Your task to perform on an android device: all mails in gmail Image 0: 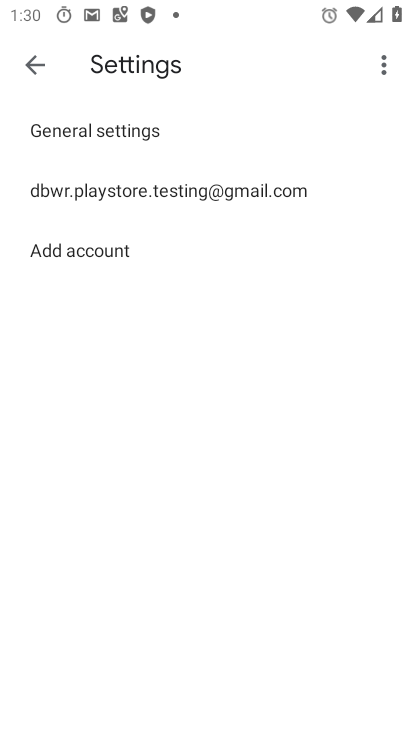
Step 0: press home button
Your task to perform on an android device: all mails in gmail Image 1: 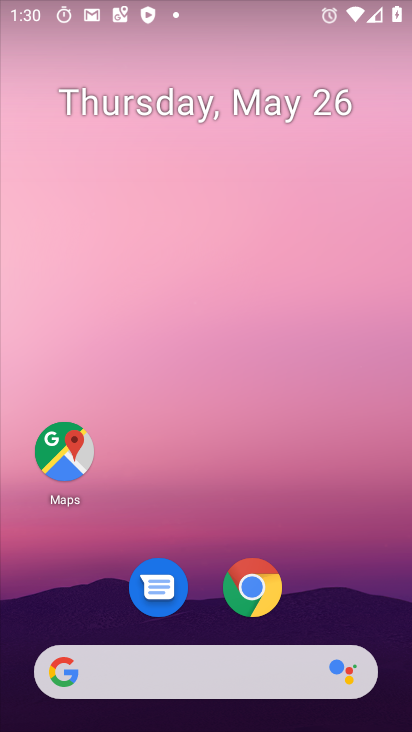
Step 1: drag from (253, 697) to (193, 48)
Your task to perform on an android device: all mails in gmail Image 2: 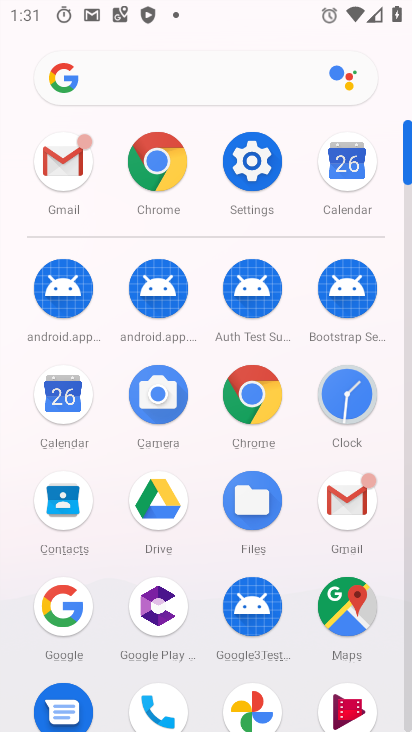
Step 2: click (89, 168)
Your task to perform on an android device: all mails in gmail Image 3: 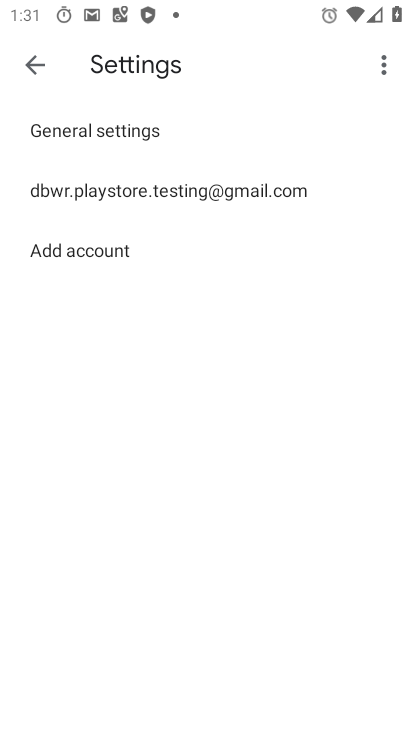
Step 3: click (38, 63)
Your task to perform on an android device: all mails in gmail Image 4: 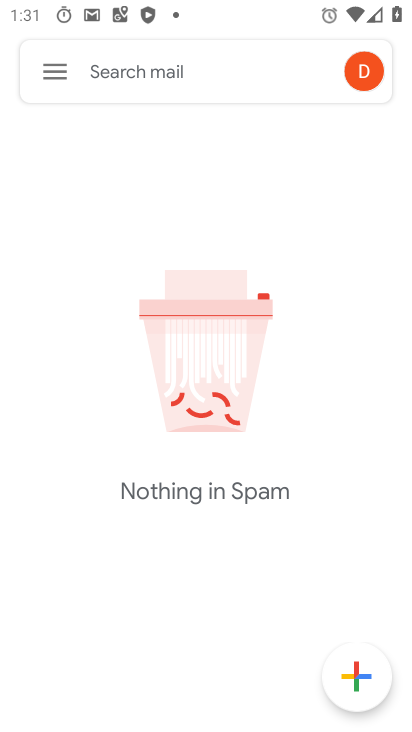
Step 4: click (48, 67)
Your task to perform on an android device: all mails in gmail Image 5: 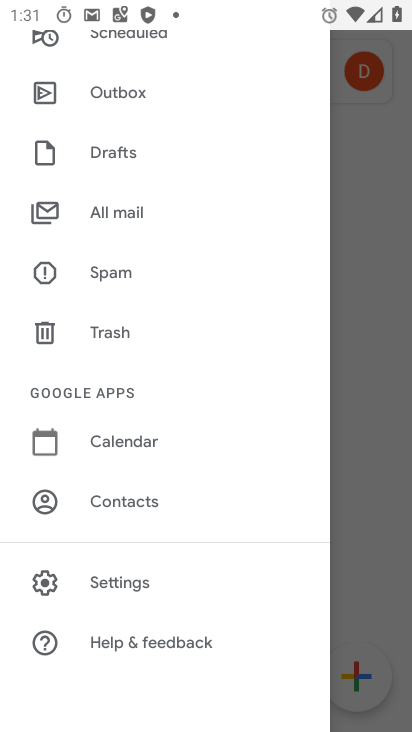
Step 5: click (130, 202)
Your task to perform on an android device: all mails in gmail Image 6: 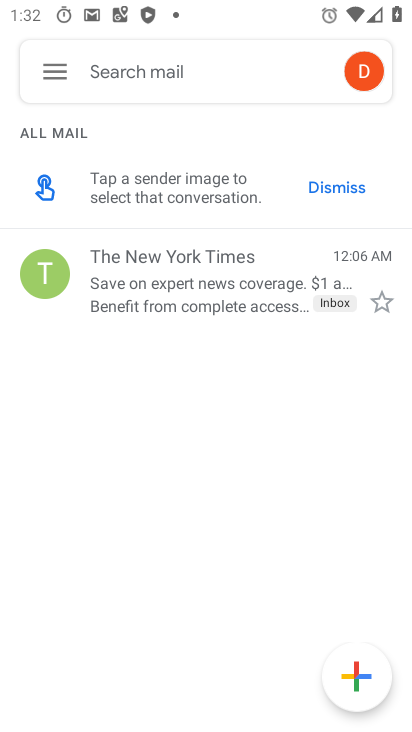
Step 6: task complete